Your task to perform on an android device: open app "ColorNote Notepad Notes" (install if not already installed) and go to login screen Image 0: 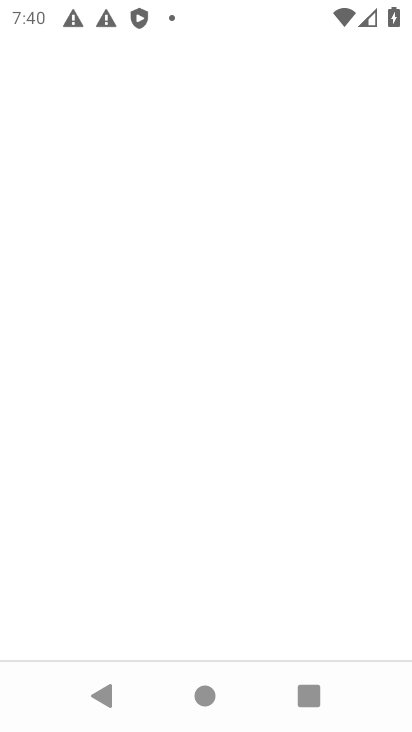
Step 0: press home button
Your task to perform on an android device: open app "ColorNote Notepad Notes" (install if not already installed) and go to login screen Image 1: 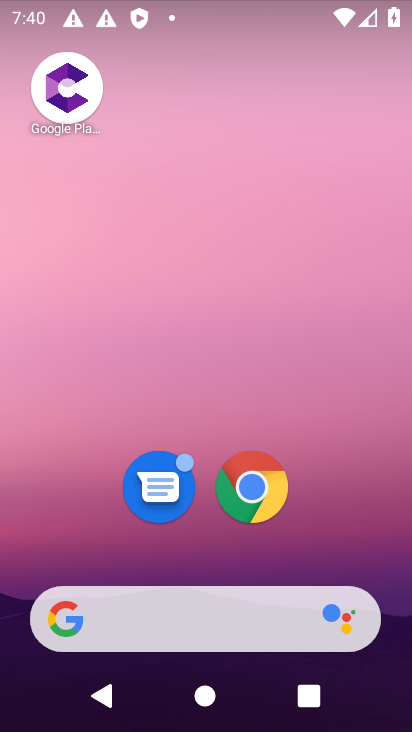
Step 1: drag from (226, 572) to (149, 17)
Your task to perform on an android device: open app "ColorNote Notepad Notes" (install if not already installed) and go to login screen Image 2: 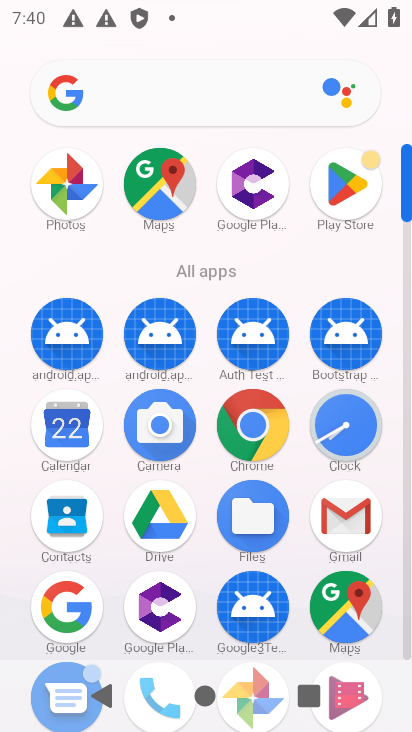
Step 2: click (339, 185)
Your task to perform on an android device: open app "ColorNote Notepad Notes" (install if not already installed) and go to login screen Image 3: 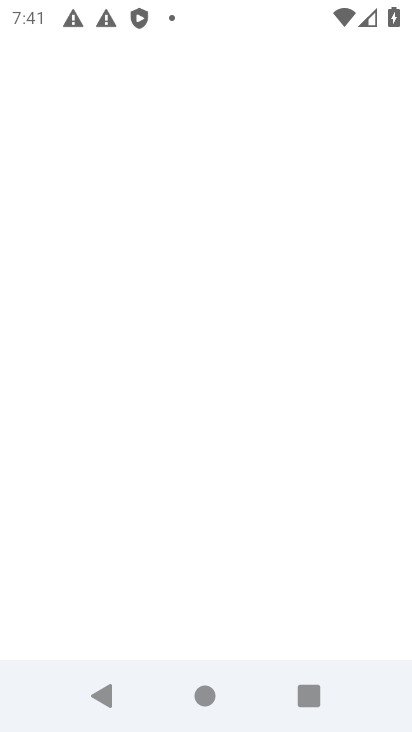
Step 3: task complete